Your task to perform on an android device: check storage Image 0: 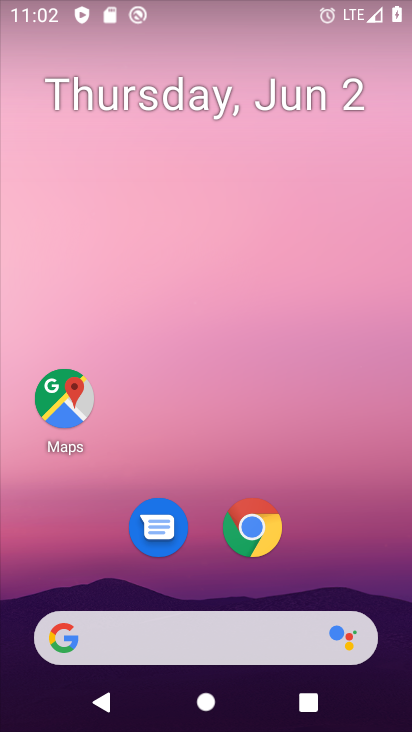
Step 0: press home button
Your task to perform on an android device: check storage Image 1: 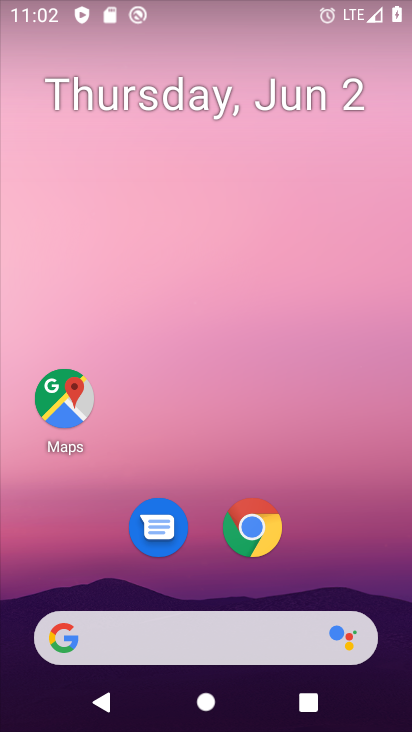
Step 1: drag from (188, 634) to (237, 119)
Your task to perform on an android device: check storage Image 2: 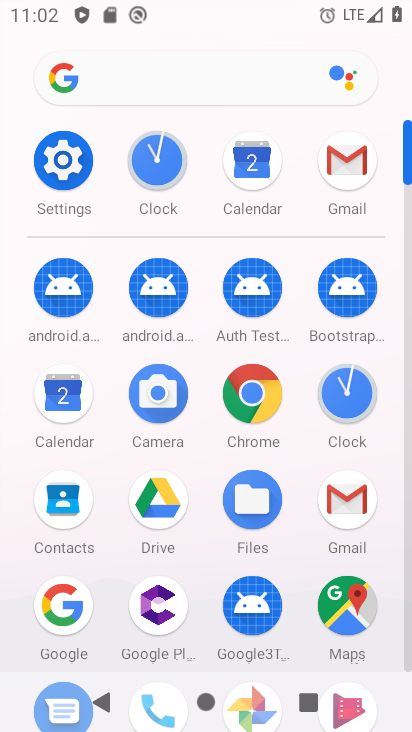
Step 2: click (54, 158)
Your task to perform on an android device: check storage Image 3: 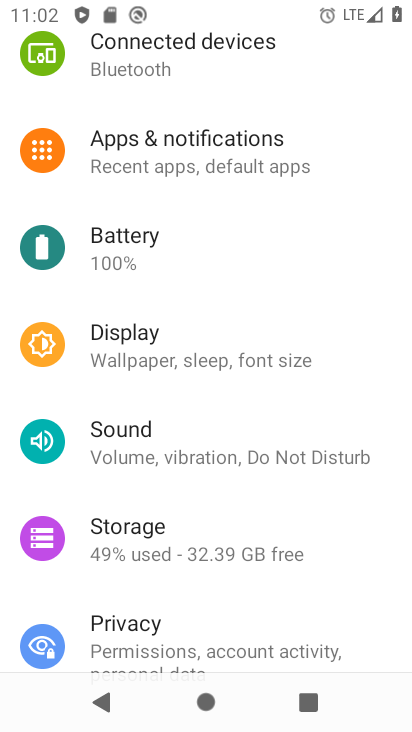
Step 3: click (132, 537)
Your task to perform on an android device: check storage Image 4: 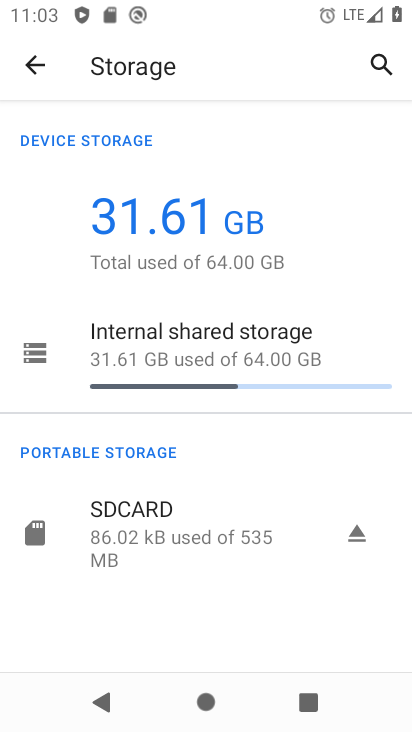
Step 4: task complete